Your task to perform on an android device: Open Google Chrome and click the shortcut for Amazon.com Image 0: 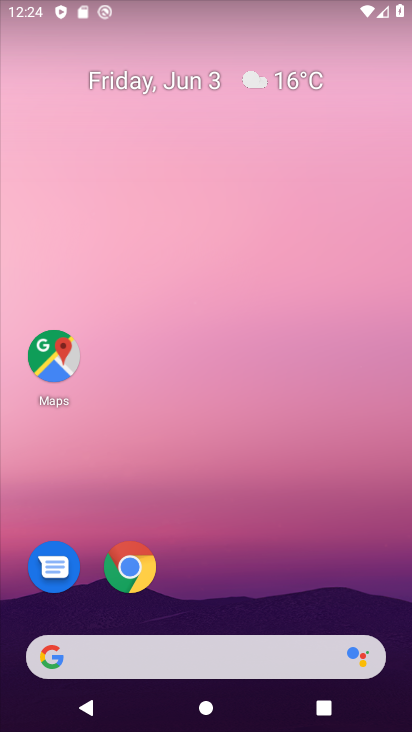
Step 0: click (124, 565)
Your task to perform on an android device: Open Google Chrome and click the shortcut for Amazon.com Image 1: 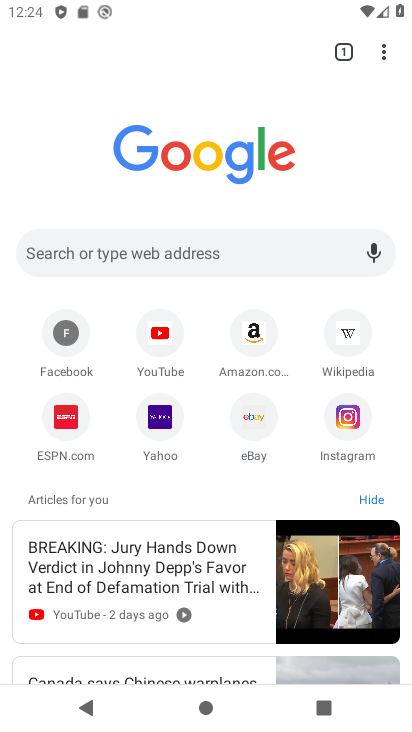
Step 1: click (248, 336)
Your task to perform on an android device: Open Google Chrome and click the shortcut for Amazon.com Image 2: 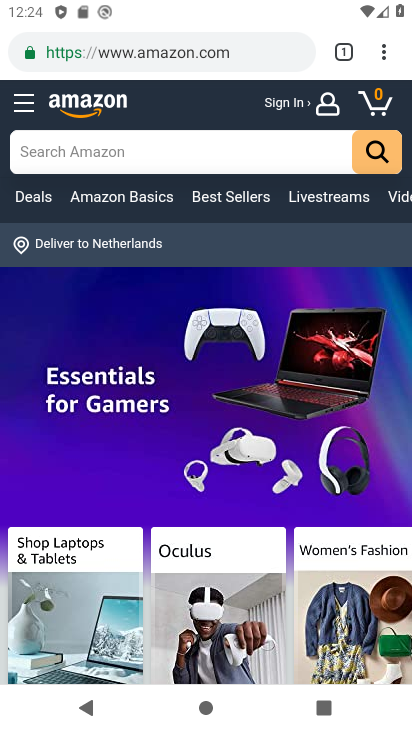
Step 2: task complete